Your task to perform on an android device: Check the weather Image 0: 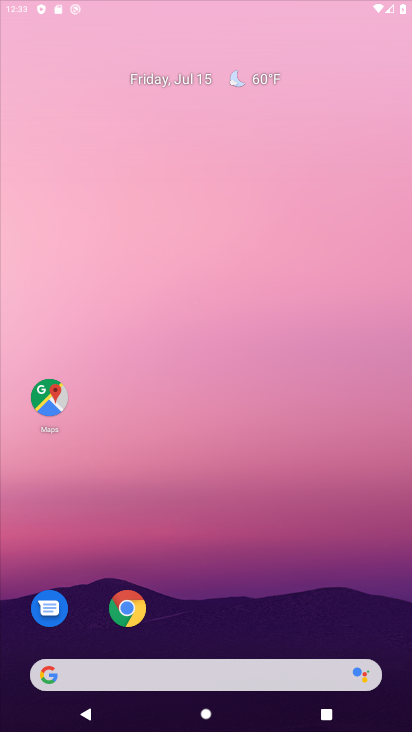
Step 0: drag from (293, 366) to (332, 150)
Your task to perform on an android device: Check the weather Image 1: 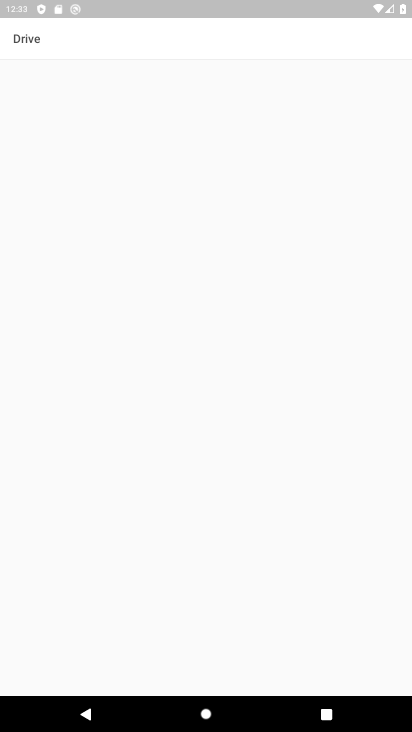
Step 1: press home button
Your task to perform on an android device: Check the weather Image 2: 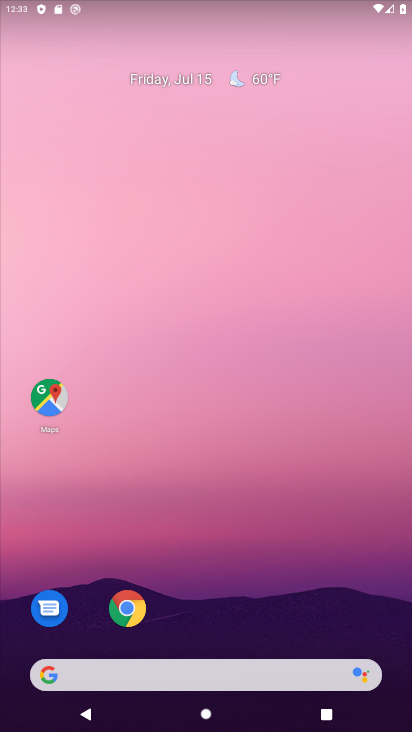
Step 2: drag from (289, 614) to (324, 64)
Your task to perform on an android device: Check the weather Image 3: 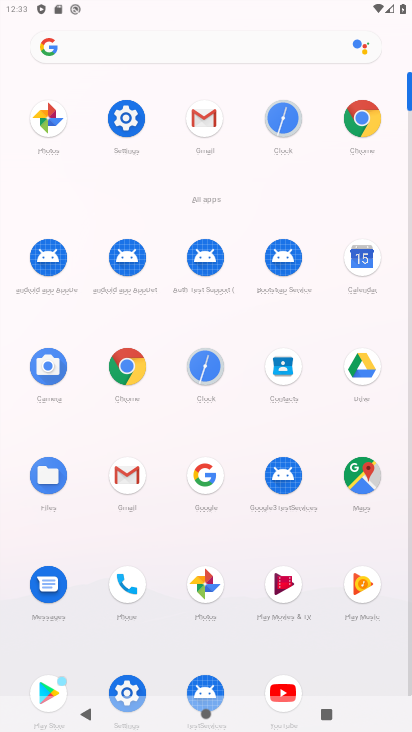
Step 3: click (123, 357)
Your task to perform on an android device: Check the weather Image 4: 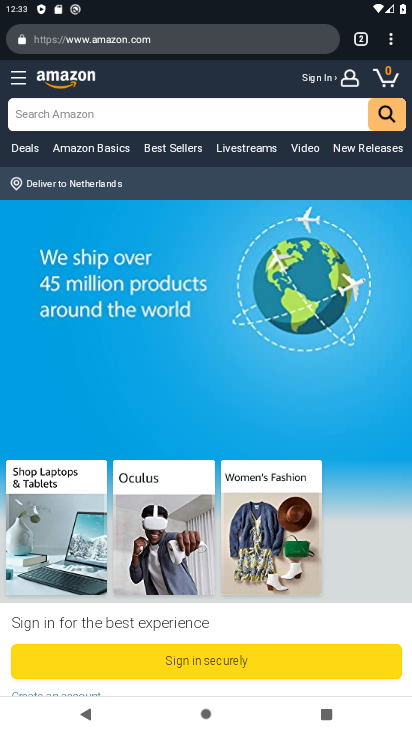
Step 4: click (184, 32)
Your task to perform on an android device: Check the weather Image 5: 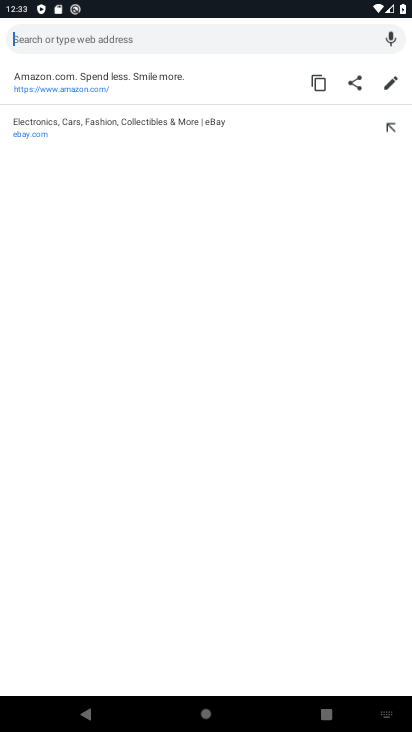
Step 5: type "Check the weather"
Your task to perform on an android device: Check the weather Image 6: 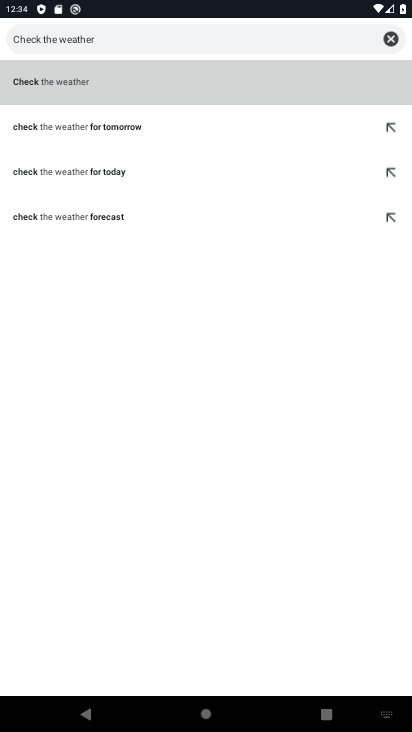
Step 6: click (74, 82)
Your task to perform on an android device: Check the weather Image 7: 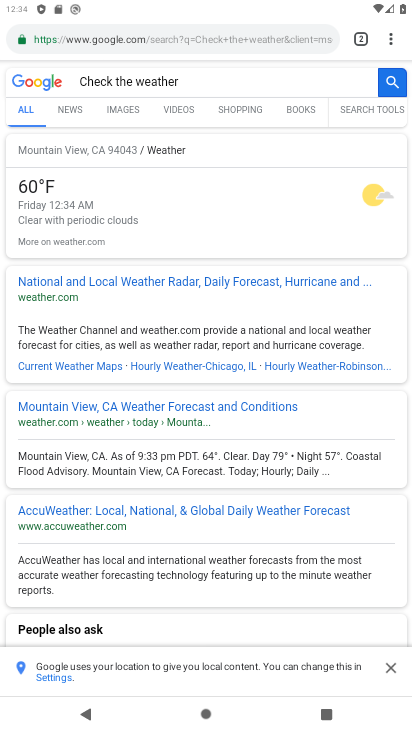
Step 7: task complete